Your task to perform on an android device: turn off smart reply in the gmail app Image 0: 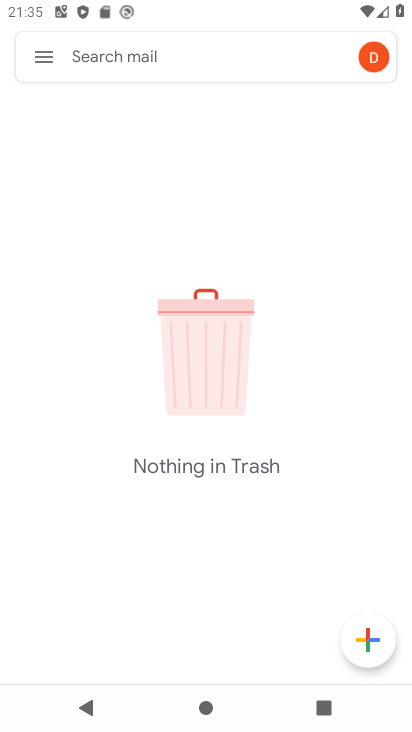
Step 0: click (38, 55)
Your task to perform on an android device: turn off smart reply in the gmail app Image 1: 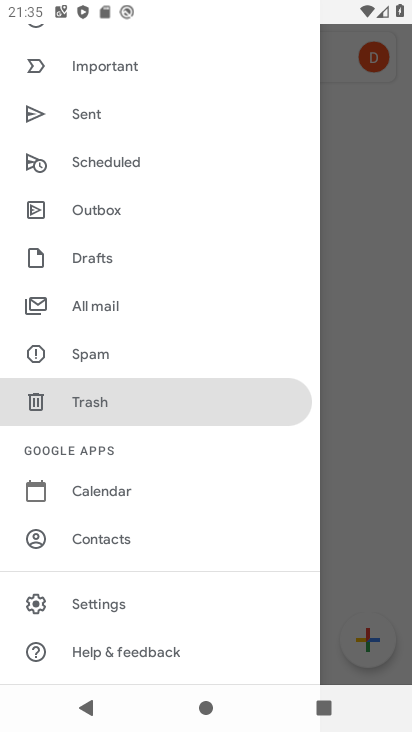
Step 1: click (112, 602)
Your task to perform on an android device: turn off smart reply in the gmail app Image 2: 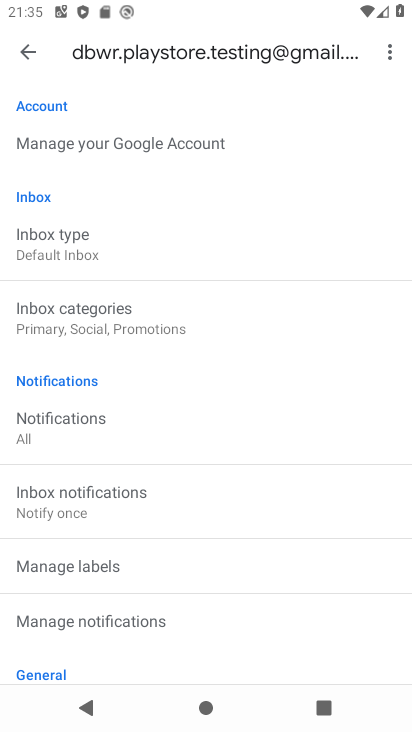
Step 2: drag from (117, 619) to (119, 129)
Your task to perform on an android device: turn off smart reply in the gmail app Image 3: 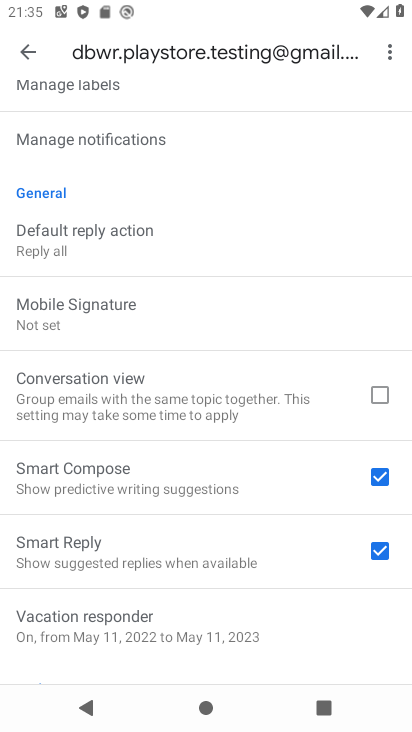
Step 3: click (386, 547)
Your task to perform on an android device: turn off smart reply in the gmail app Image 4: 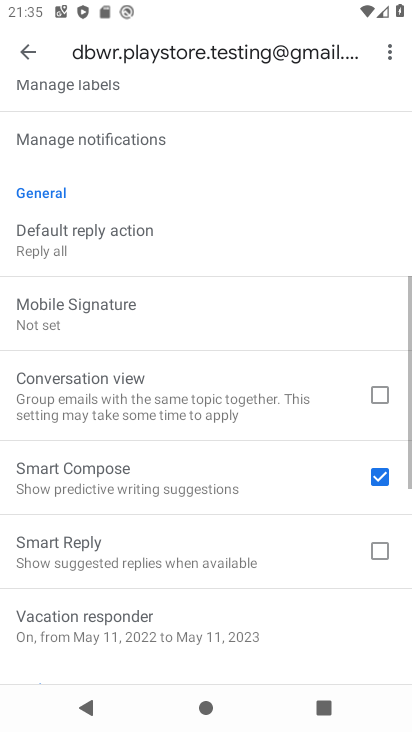
Step 4: task complete